Your task to perform on an android device: Search for the best rated 4K TV on Best Buy. Image 0: 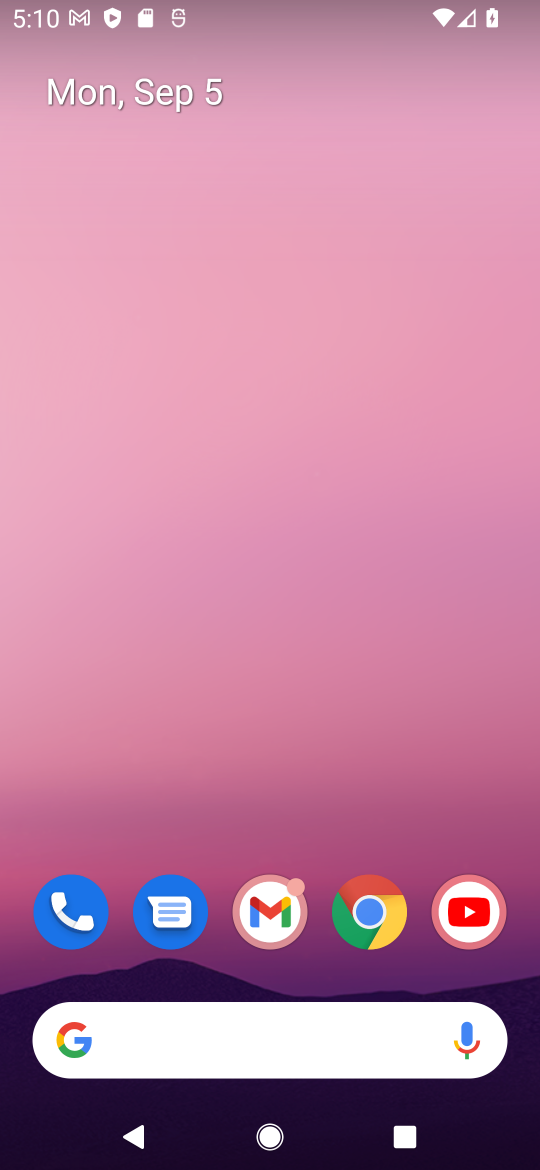
Step 0: click (363, 931)
Your task to perform on an android device: Search for the best rated 4K TV on Best Buy. Image 1: 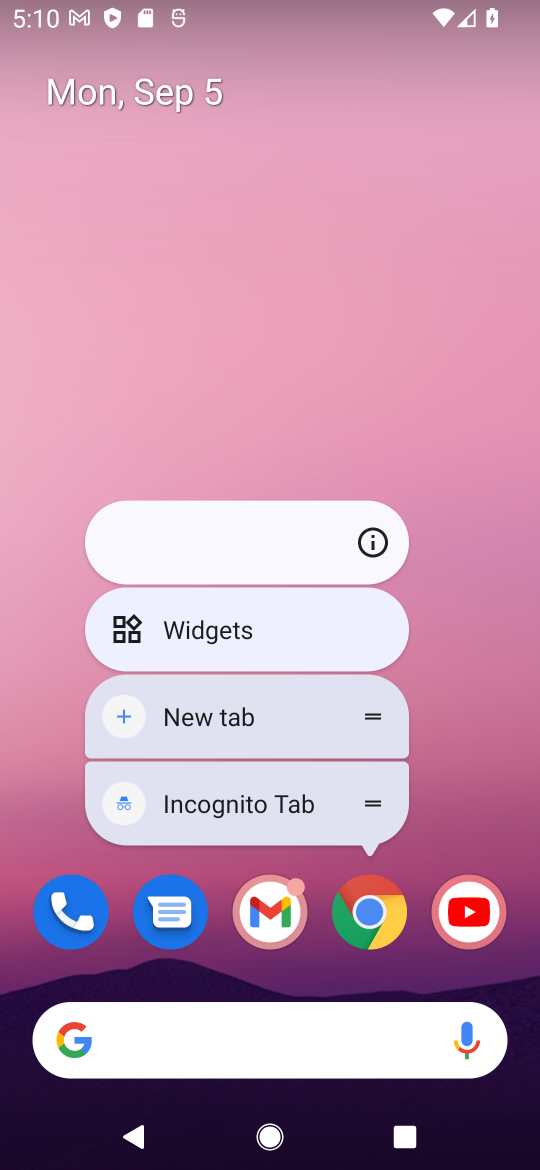
Step 1: click (369, 923)
Your task to perform on an android device: Search for the best rated 4K TV on Best Buy. Image 2: 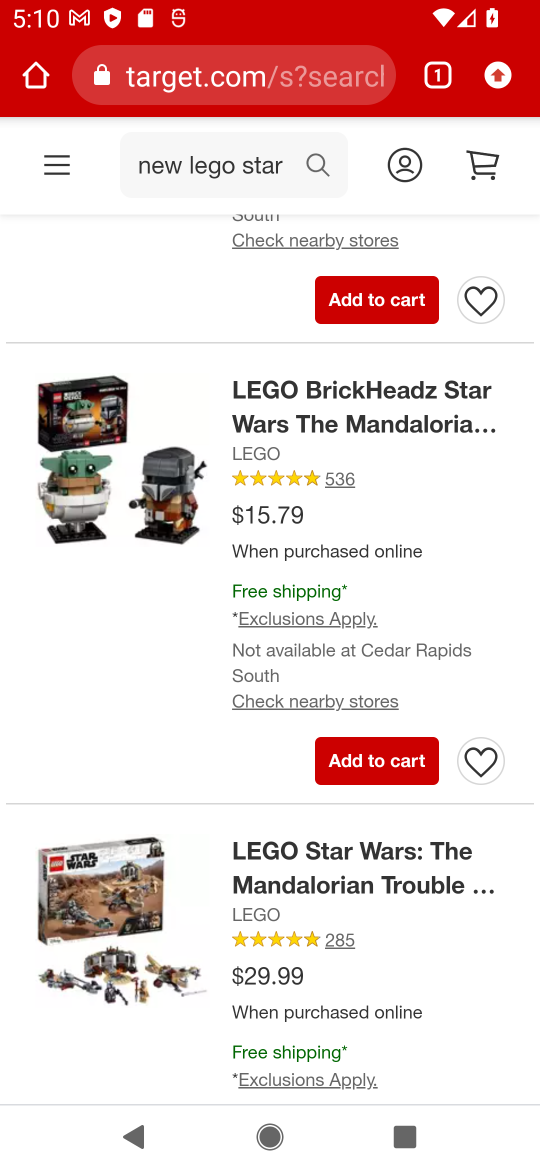
Step 2: click (224, 78)
Your task to perform on an android device: Search for the best rated 4K TV on Best Buy. Image 3: 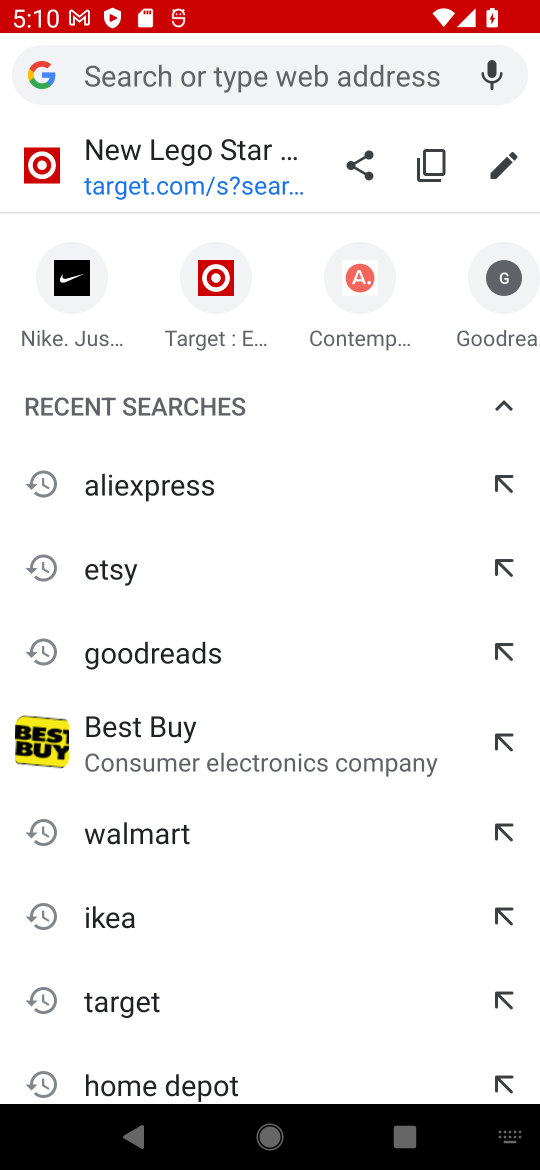
Step 3: type "best buy"
Your task to perform on an android device: Search for the best rated 4K TV on Best Buy. Image 4: 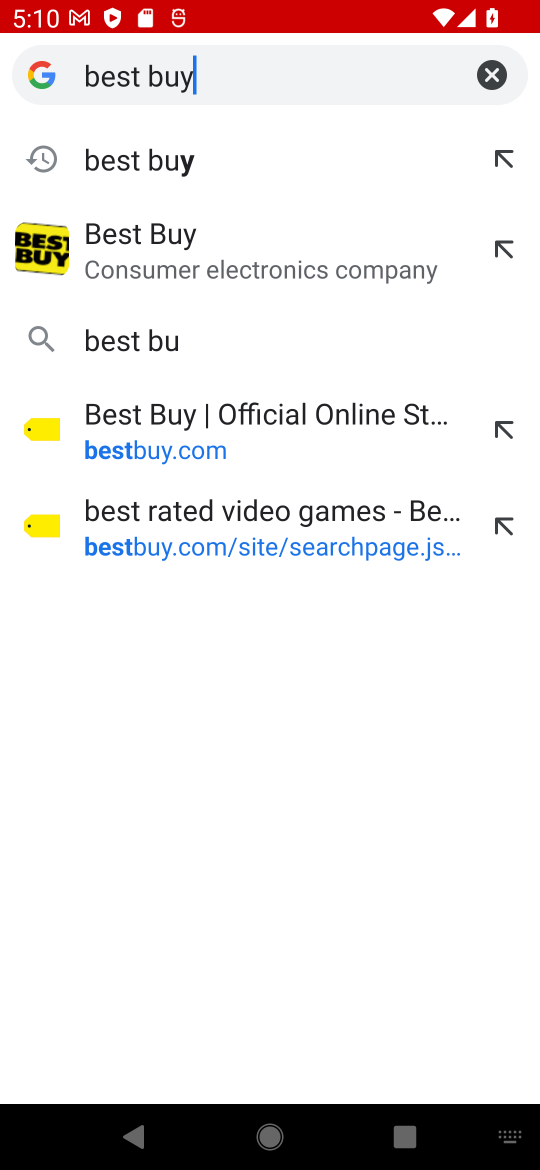
Step 4: type ""
Your task to perform on an android device: Search for the best rated 4K TV on Best Buy. Image 5: 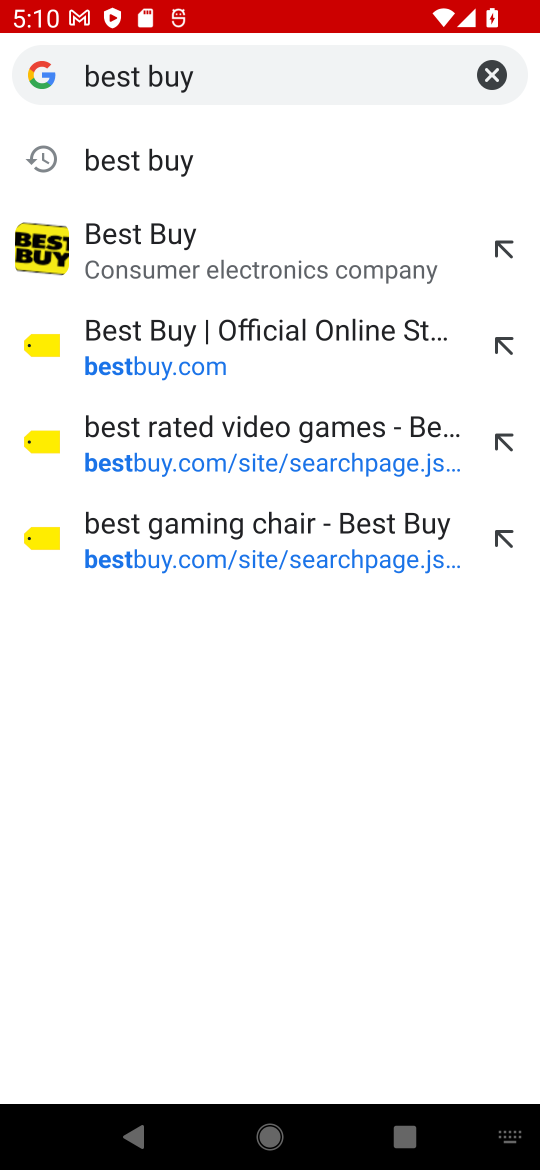
Step 5: press enter
Your task to perform on an android device: Search for the best rated 4K TV on Best Buy. Image 6: 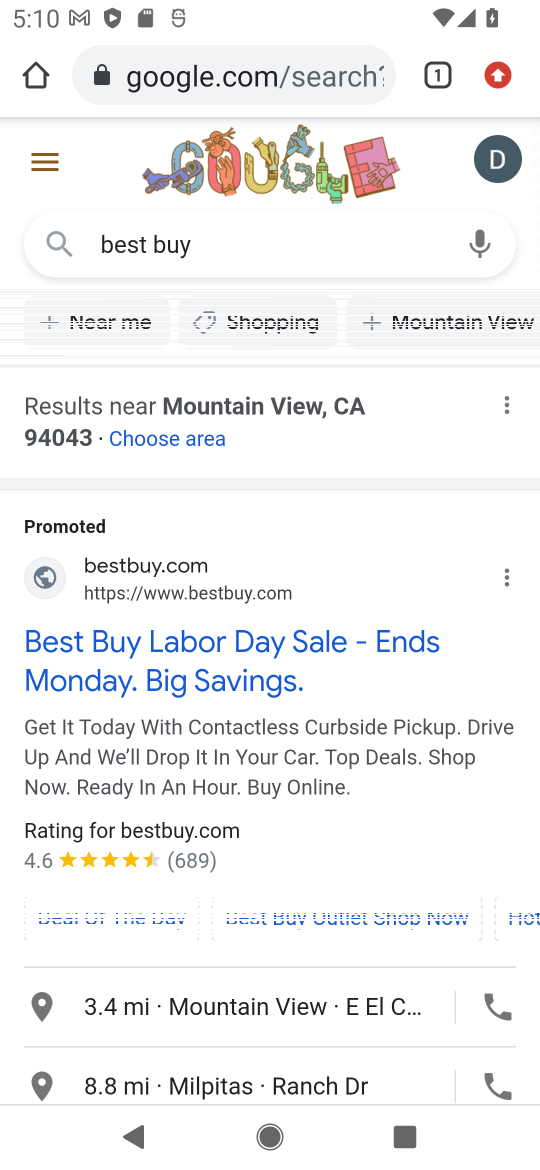
Step 6: click (106, 660)
Your task to perform on an android device: Search for the best rated 4K TV on Best Buy. Image 7: 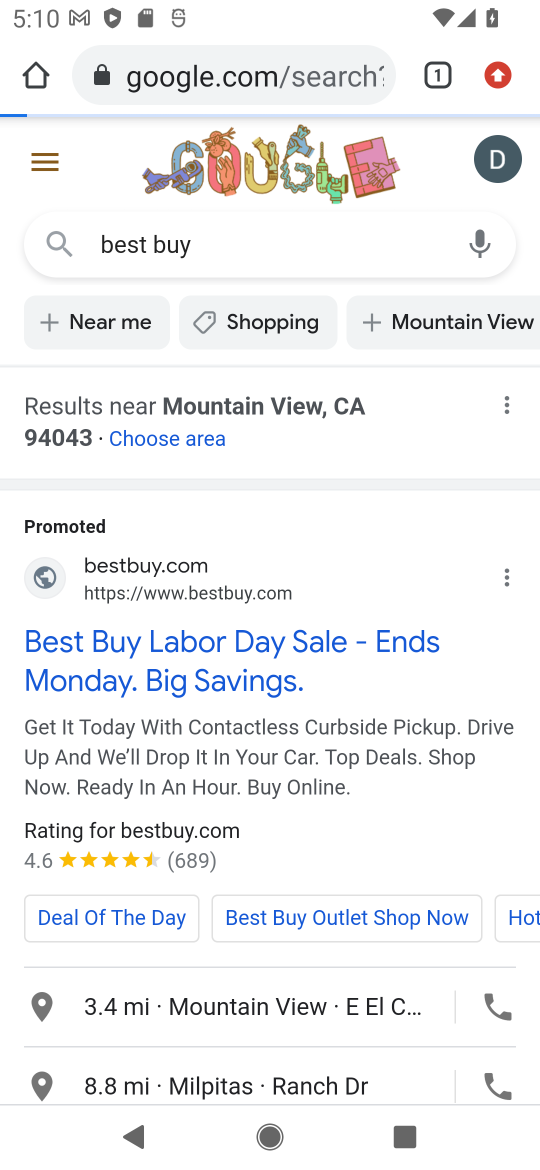
Step 7: click (258, 643)
Your task to perform on an android device: Search for the best rated 4K TV on Best Buy. Image 8: 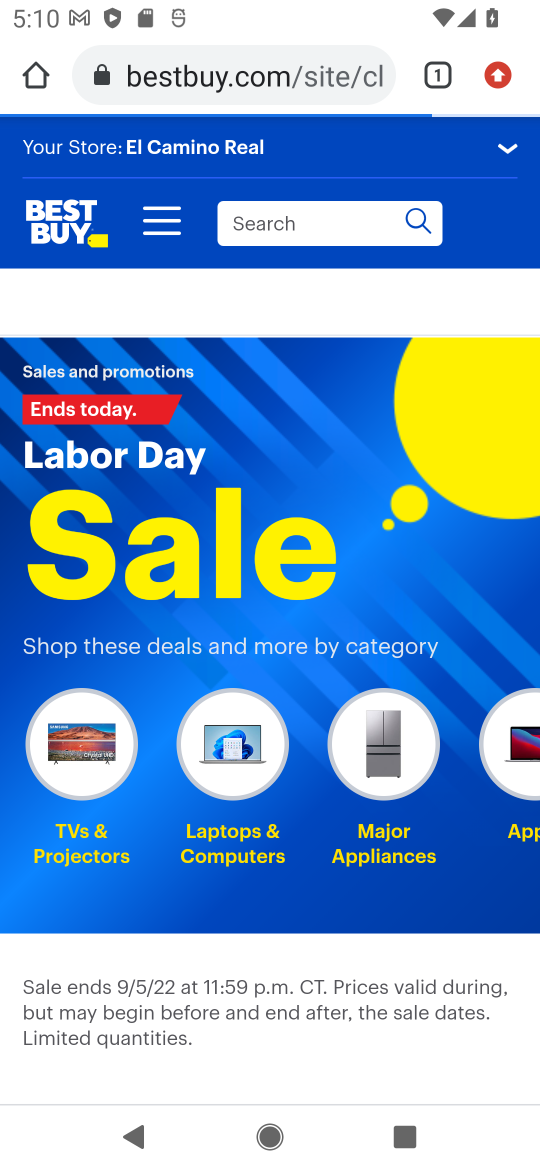
Step 8: click (299, 220)
Your task to perform on an android device: Search for the best rated 4K TV on Best Buy. Image 9: 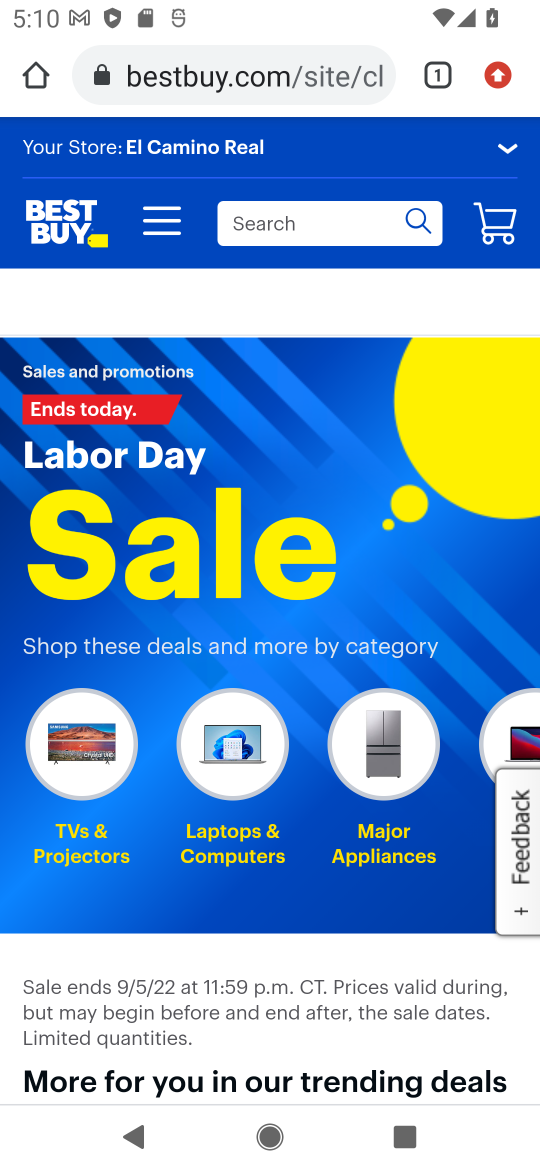
Step 9: type "4K tv"
Your task to perform on an android device: Search for the best rated 4K TV on Best Buy. Image 10: 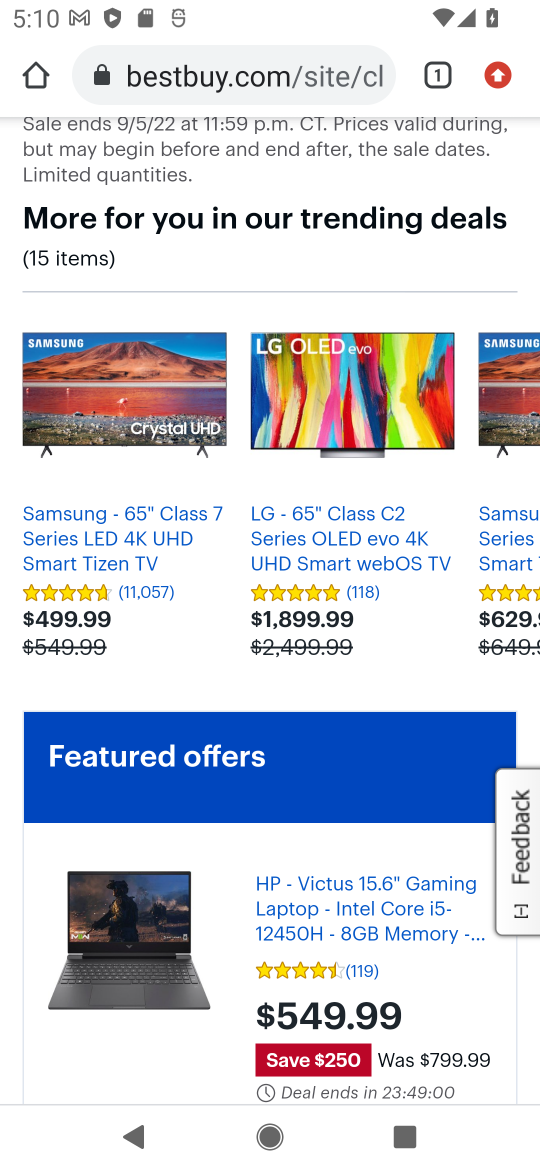
Step 10: press enter
Your task to perform on an android device: Search for the best rated 4K TV on Best Buy. Image 11: 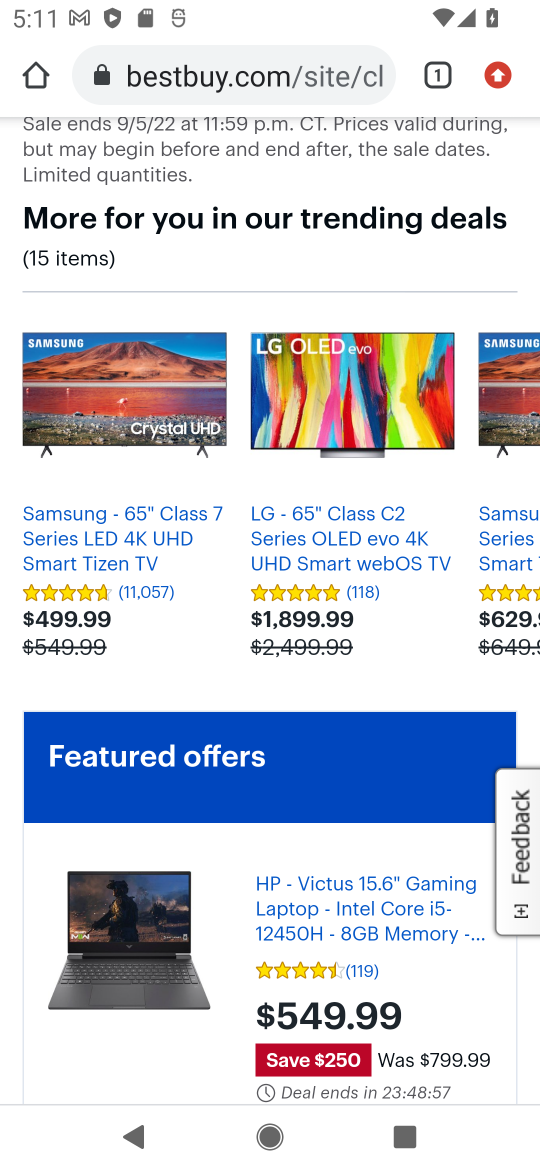
Step 11: drag from (233, 770) to (266, 960)
Your task to perform on an android device: Search for the best rated 4K TV on Best Buy. Image 12: 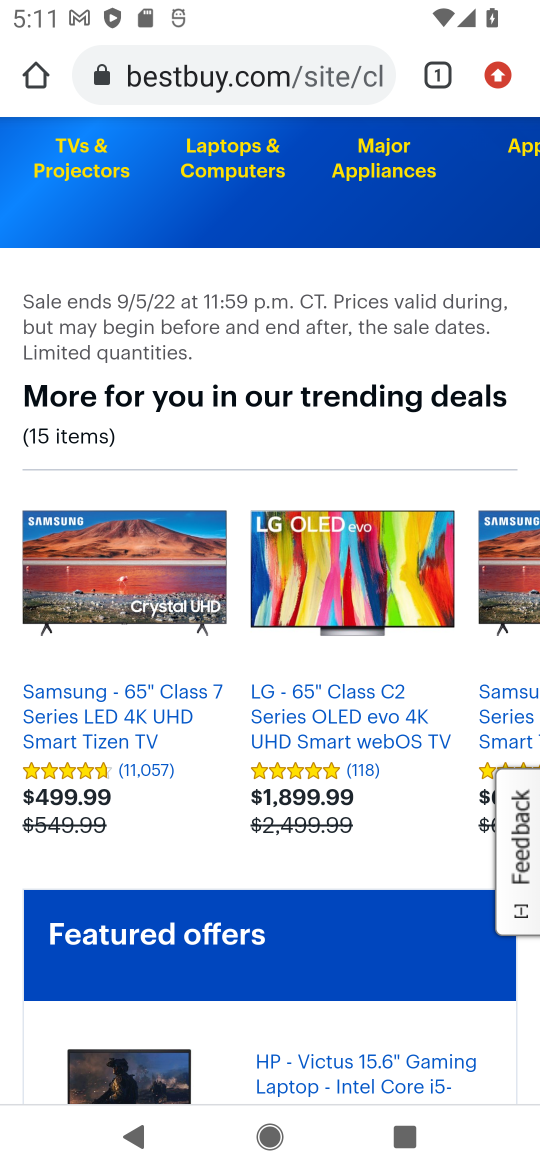
Step 12: drag from (140, 558) to (166, 276)
Your task to perform on an android device: Search for the best rated 4K TV on Best Buy. Image 13: 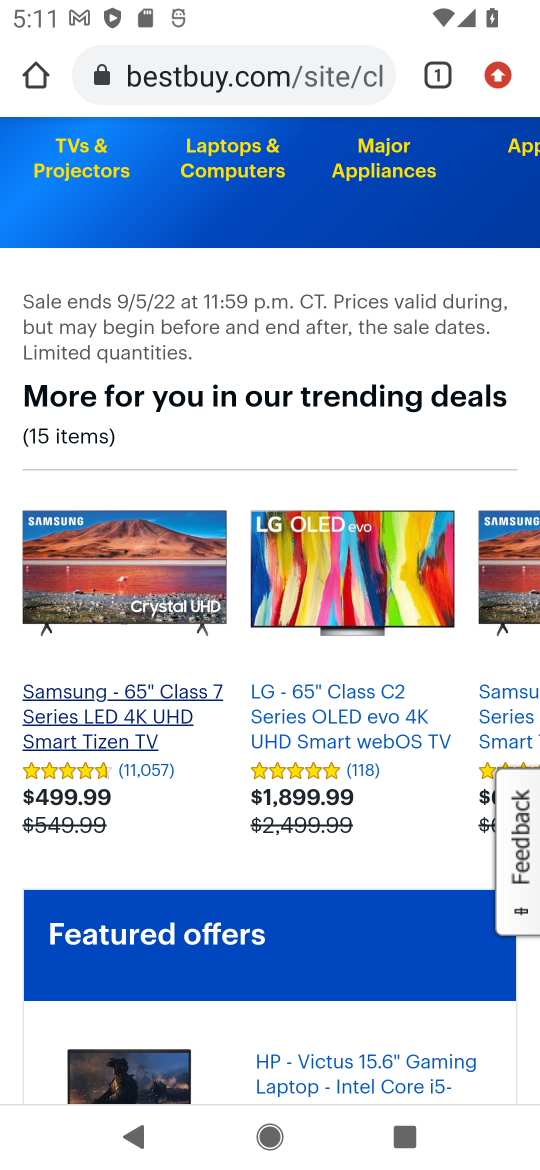
Step 13: drag from (253, 340) to (297, 816)
Your task to perform on an android device: Search for the best rated 4K TV on Best Buy. Image 14: 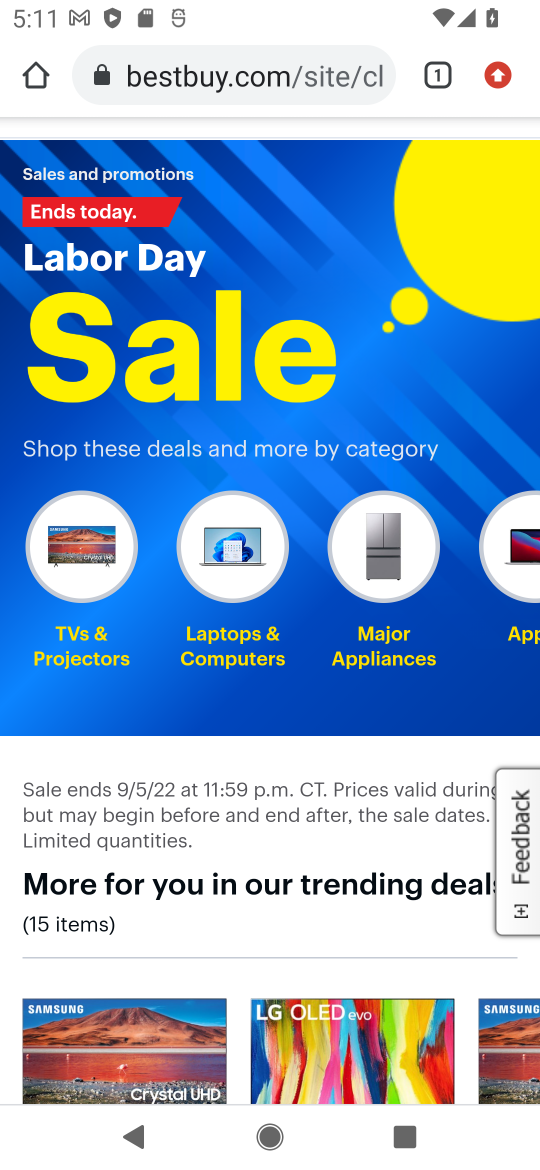
Step 14: drag from (294, 784) to (299, 1007)
Your task to perform on an android device: Search for the best rated 4K TV on Best Buy. Image 15: 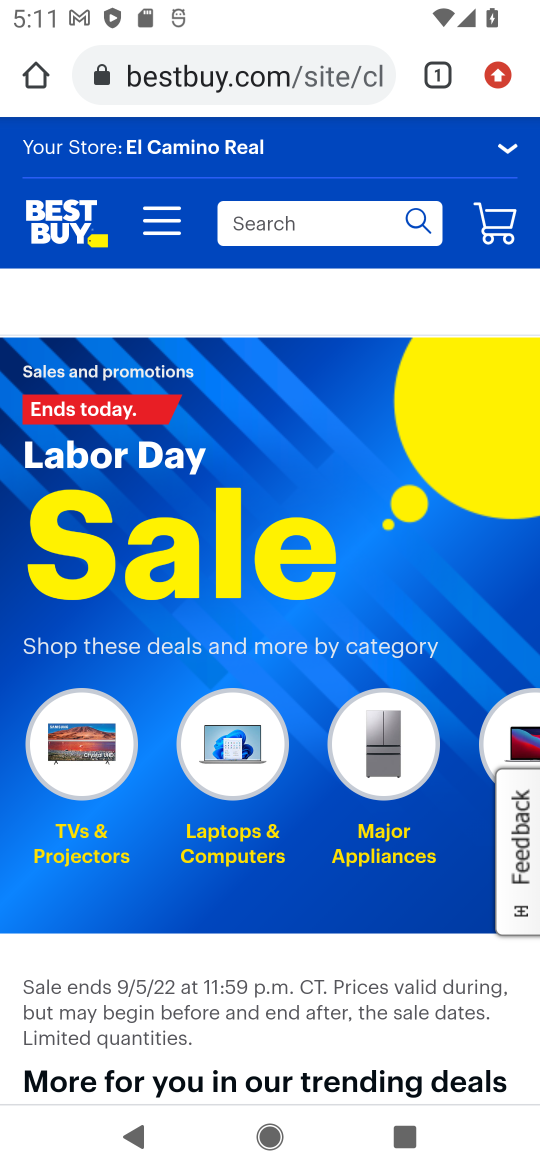
Step 15: click (302, 227)
Your task to perform on an android device: Search for the best rated 4K TV on Best Buy. Image 16: 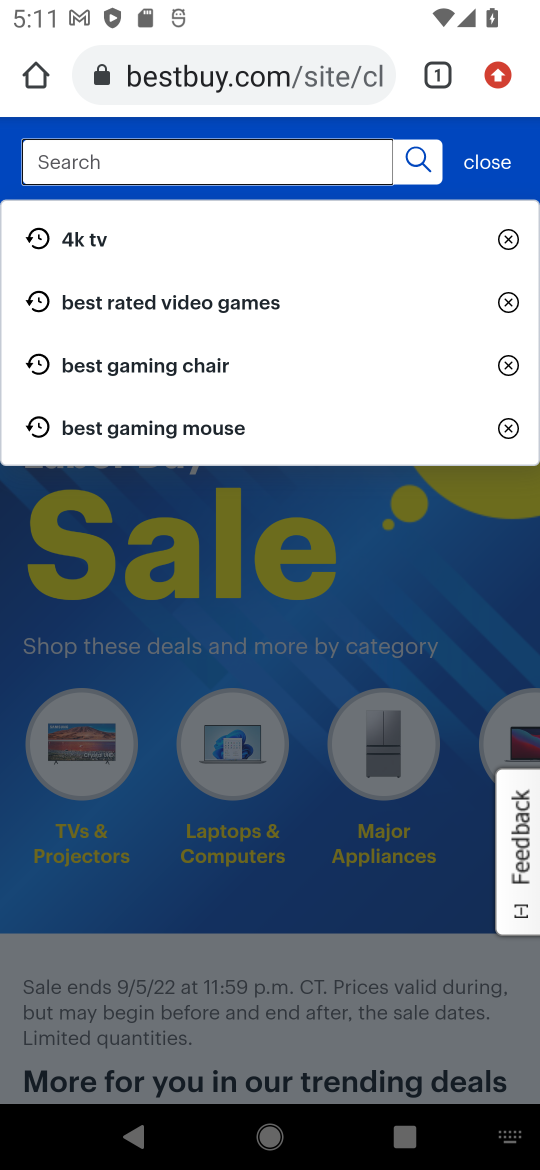
Step 16: click (220, 258)
Your task to perform on an android device: Search for the best rated 4K TV on Best Buy. Image 17: 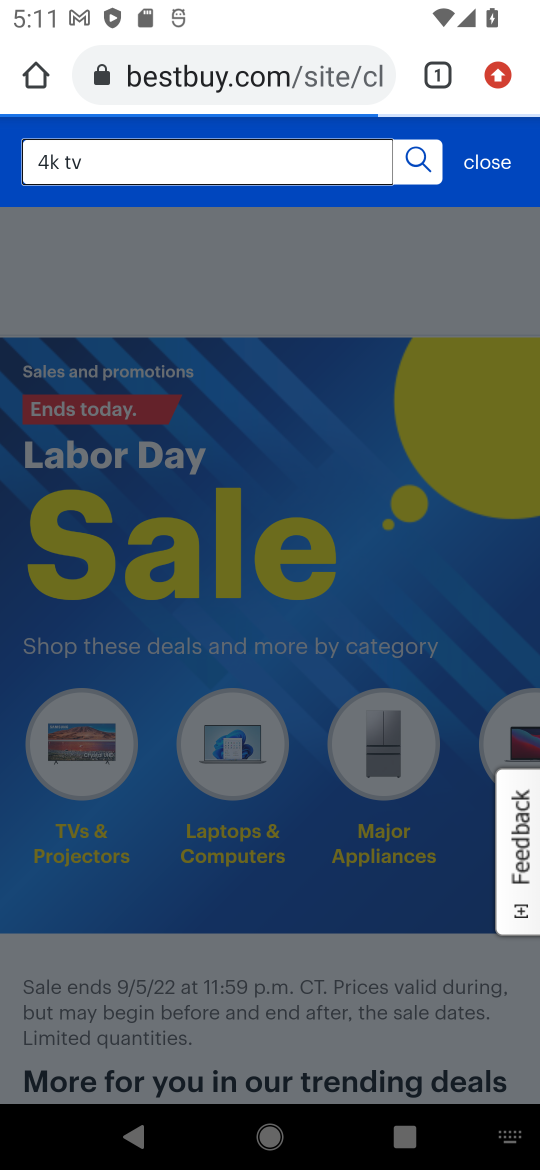
Step 17: click (422, 147)
Your task to perform on an android device: Search for the best rated 4K TV on Best Buy. Image 18: 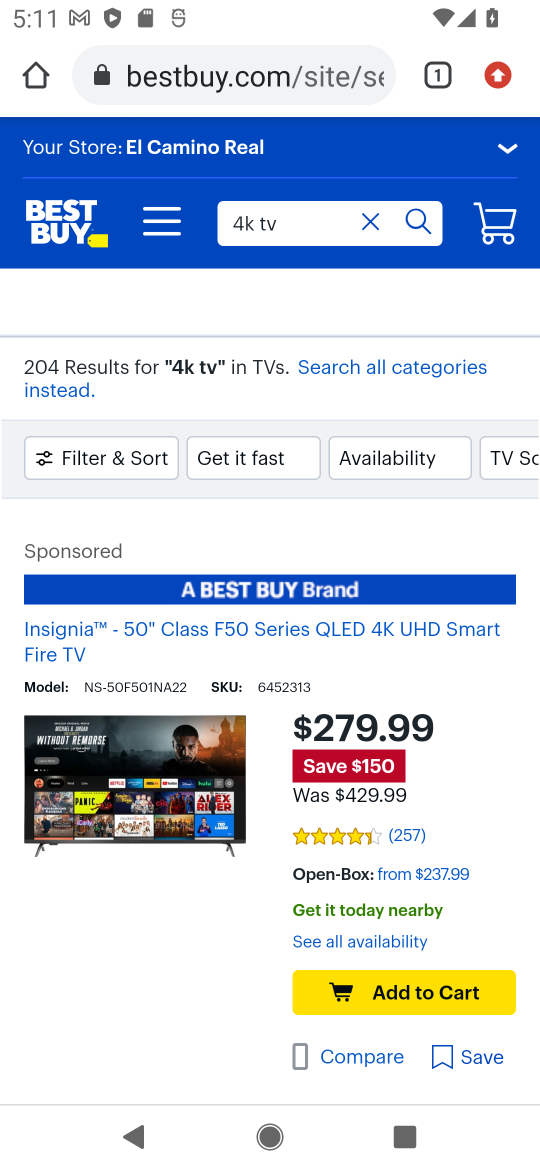
Step 18: drag from (206, 879) to (238, 310)
Your task to perform on an android device: Search for the best rated 4K TV on Best Buy. Image 19: 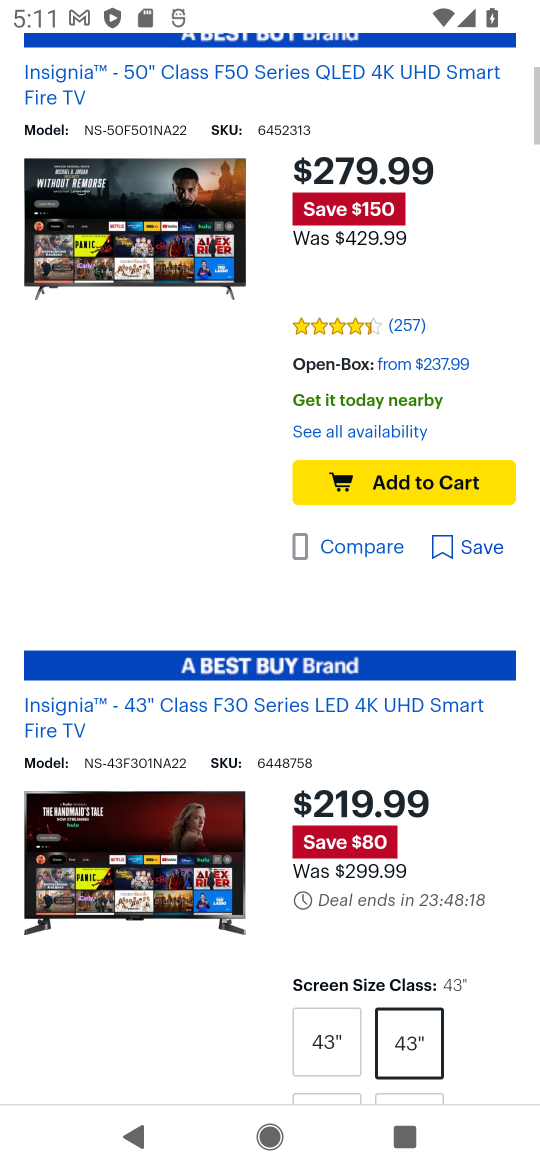
Step 19: drag from (236, 817) to (235, 266)
Your task to perform on an android device: Search for the best rated 4K TV on Best Buy. Image 20: 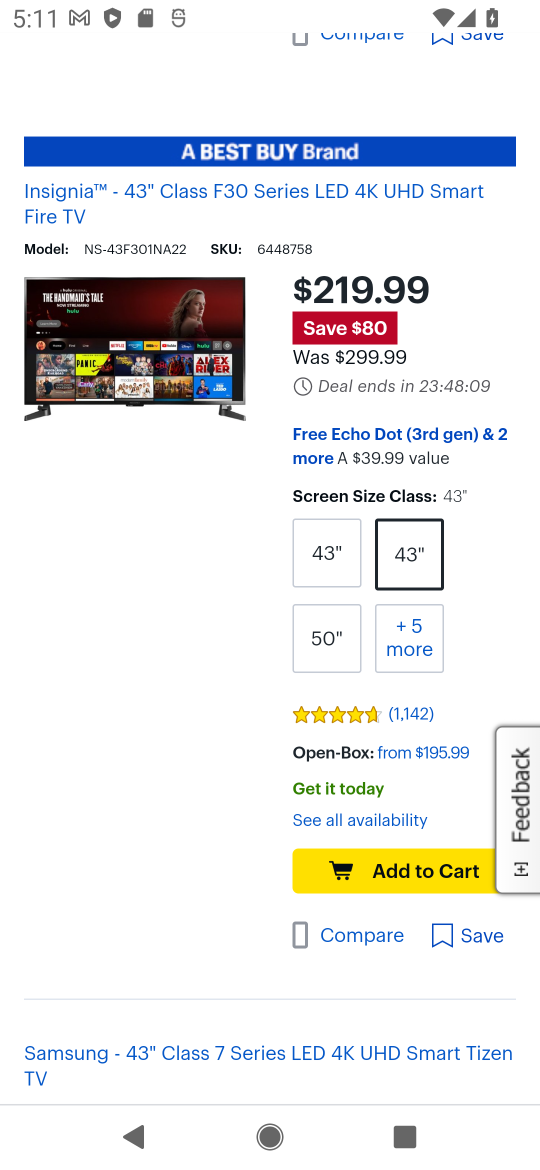
Step 20: drag from (252, 925) to (223, 1169)
Your task to perform on an android device: Search for the best rated 4K TV on Best Buy. Image 21: 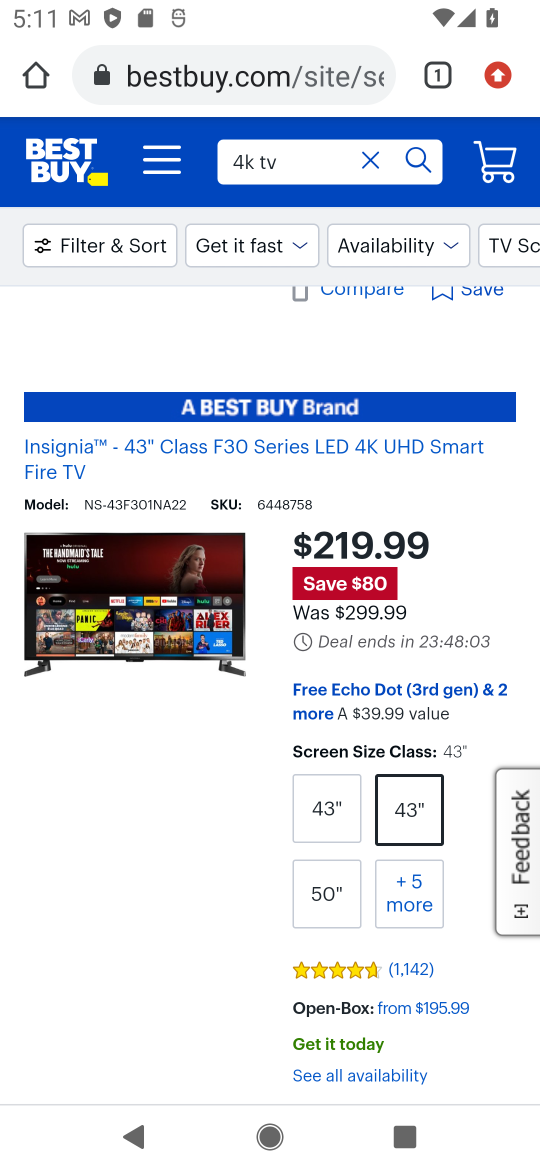
Step 21: click (93, 238)
Your task to perform on an android device: Search for the best rated 4K TV on Best Buy. Image 22: 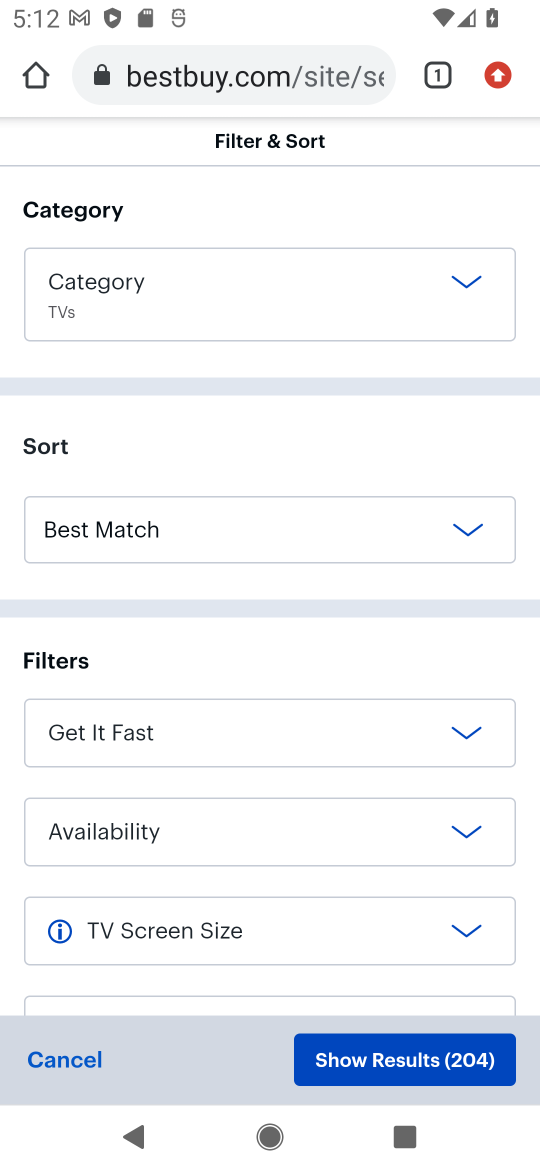
Step 22: drag from (328, 896) to (380, 307)
Your task to perform on an android device: Search for the best rated 4K TV on Best Buy. Image 23: 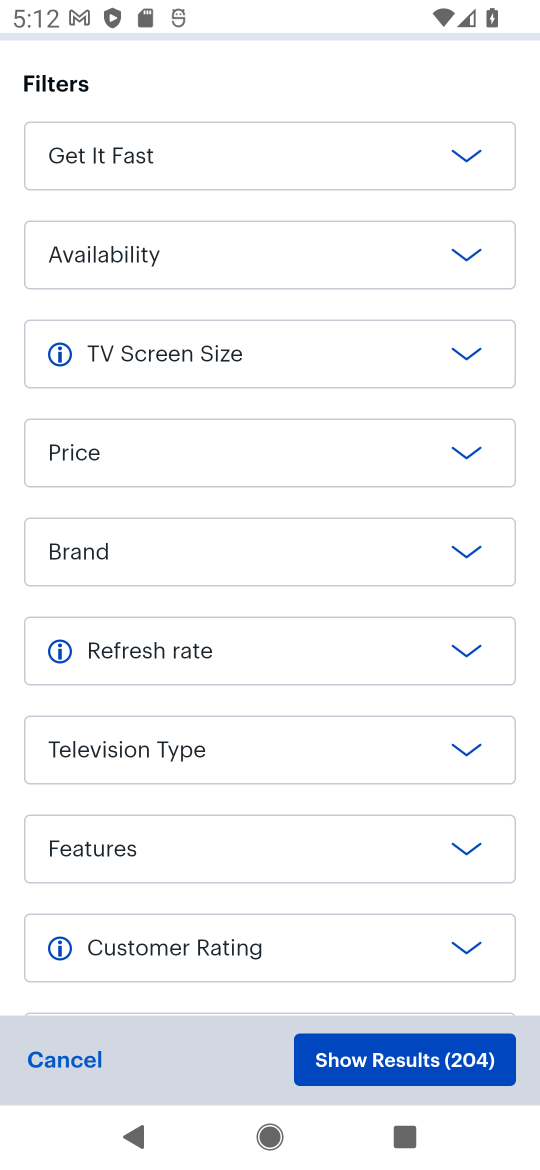
Step 23: drag from (261, 870) to (261, 716)
Your task to perform on an android device: Search for the best rated 4K TV on Best Buy. Image 24: 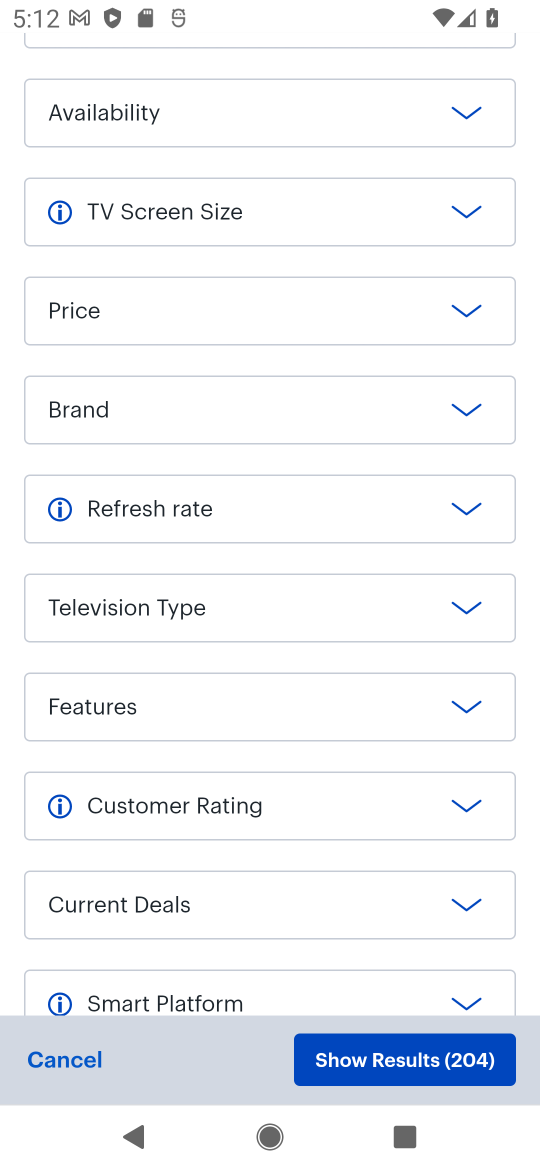
Step 24: drag from (263, 838) to (281, 670)
Your task to perform on an android device: Search for the best rated 4K TV on Best Buy. Image 25: 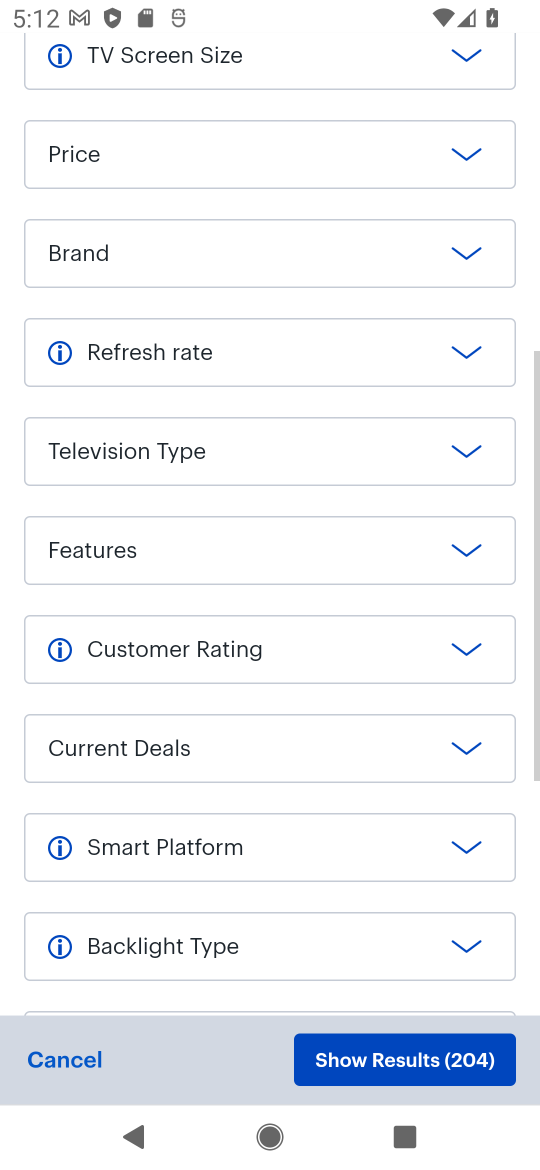
Step 25: click (315, 659)
Your task to perform on an android device: Search for the best rated 4K TV on Best Buy. Image 26: 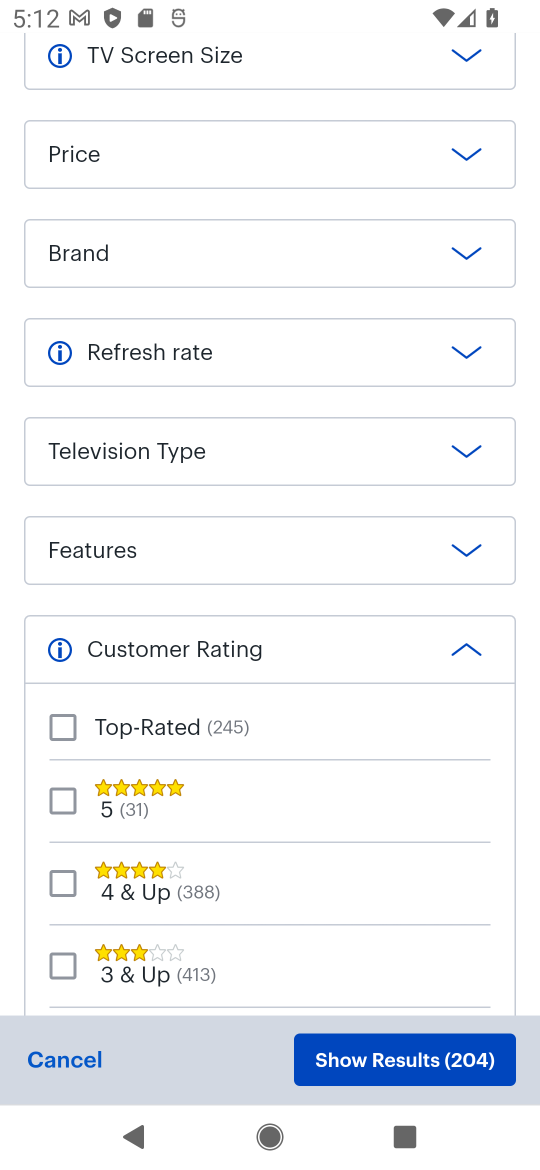
Step 26: click (58, 721)
Your task to perform on an android device: Search for the best rated 4K TV on Best Buy. Image 27: 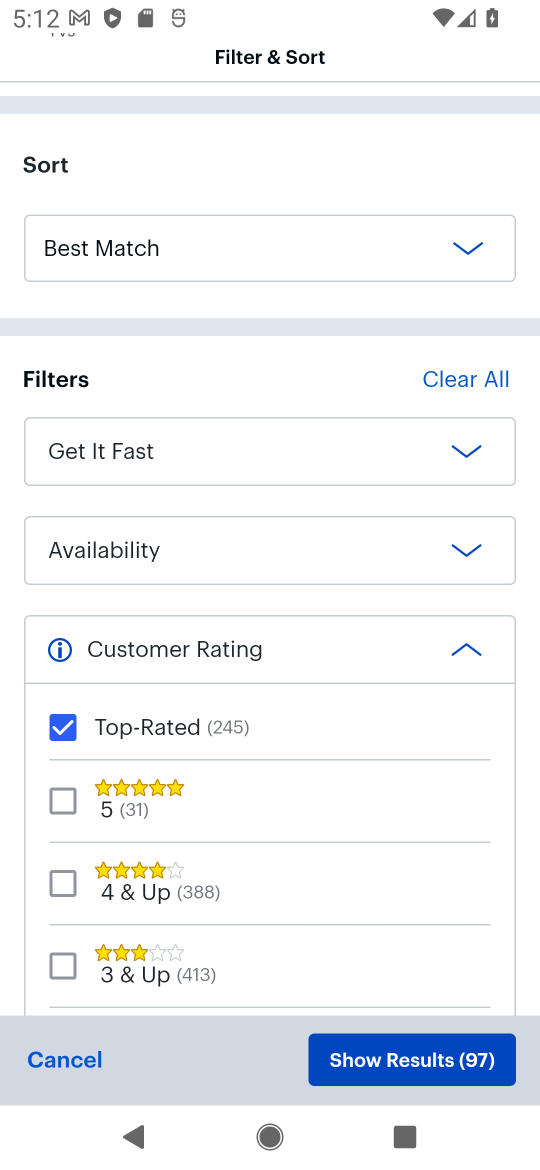
Step 27: click (417, 1067)
Your task to perform on an android device: Search for the best rated 4K TV on Best Buy. Image 28: 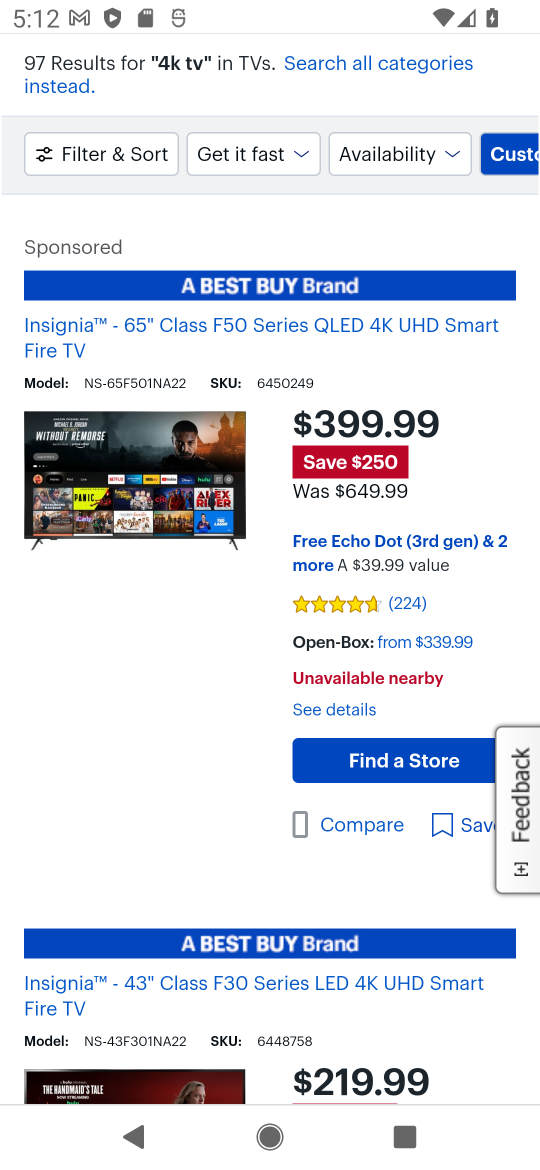
Step 28: task complete